Your task to perform on an android device: Open Chrome and go to the settings page Image 0: 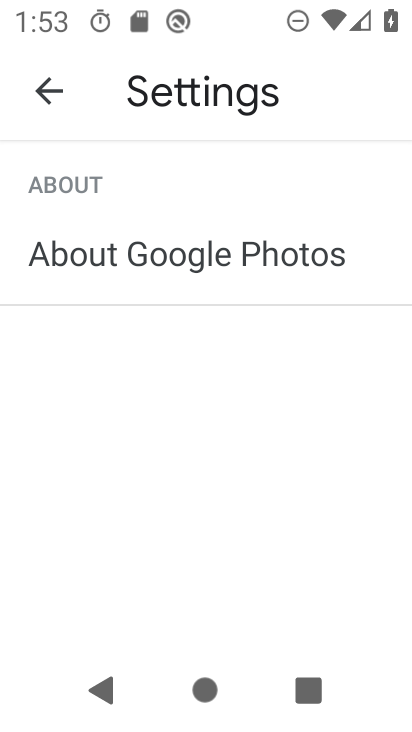
Step 0: press home button
Your task to perform on an android device: Open Chrome and go to the settings page Image 1: 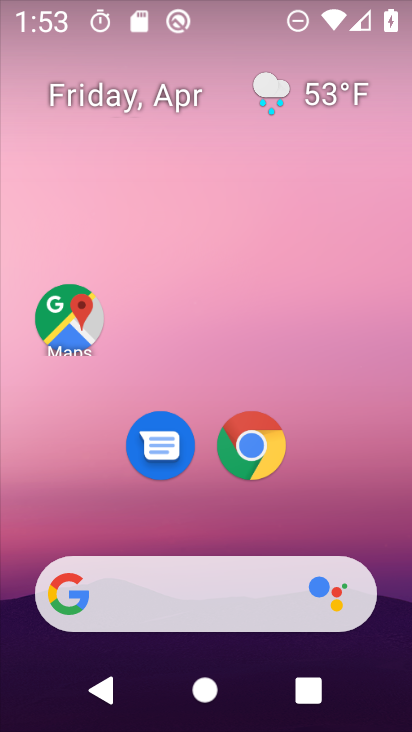
Step 1: drag from (366, 509) to (362, 164)
Your task to perform on an android device: Open Chrome and go to the settings page Image 2: 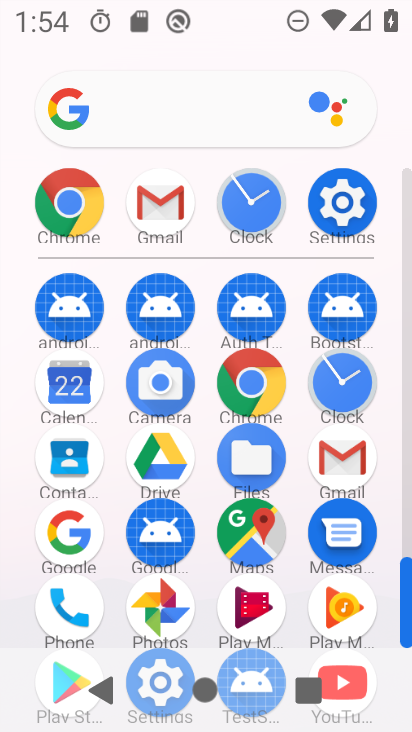
Step 2: click (267, 386)
Your task to perform on an android device: Open Chrome and go to the settings page Image 3: 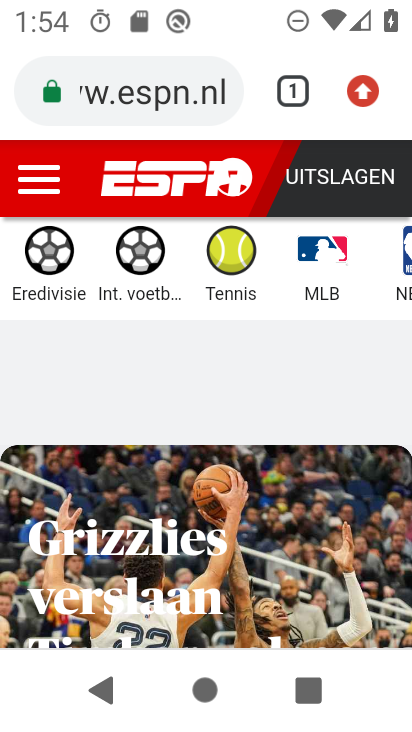
Step 3: click (363, 87)
Your task to perform on an android device: Open Chrome and go to the settings page Image 4: 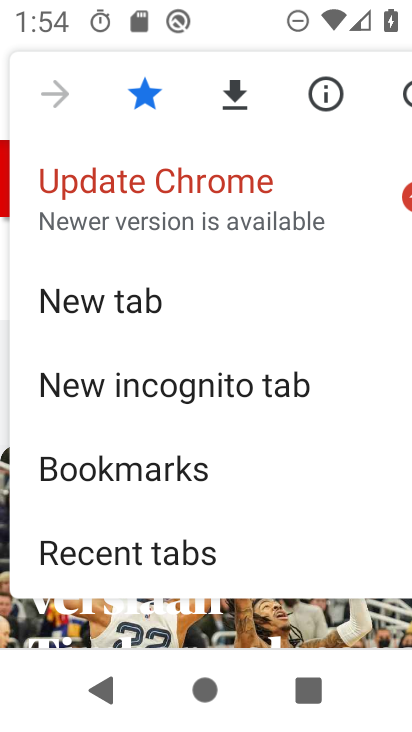
Step 4: drag from (351, 493) to (350, 395)
Your task to perform on an android device: Open Chrome and go to the settings page Image 5: 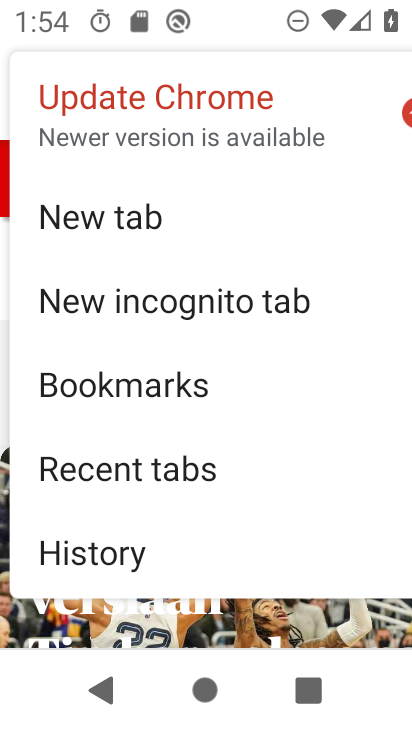
Step 5: drag from (330, 505) to (318, 337)
Your task to perform on an android device: Open Chrome and go to the settings page Image 6: 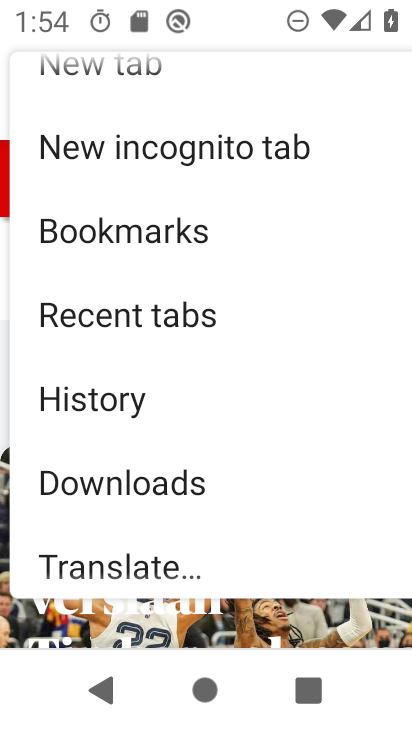
Step 6: drag from (318, 504) to (314, 333)
Your task to perform on an android device: Open Chrome and go to the settings page Image 7: 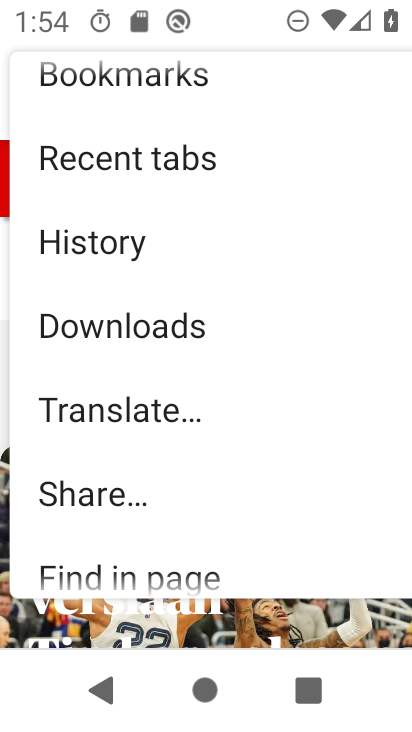
Step 7: drag from (290, 511) to (302, 276)
Your task to perform on an android device: Open Chrome and go to the settings page Image 8: 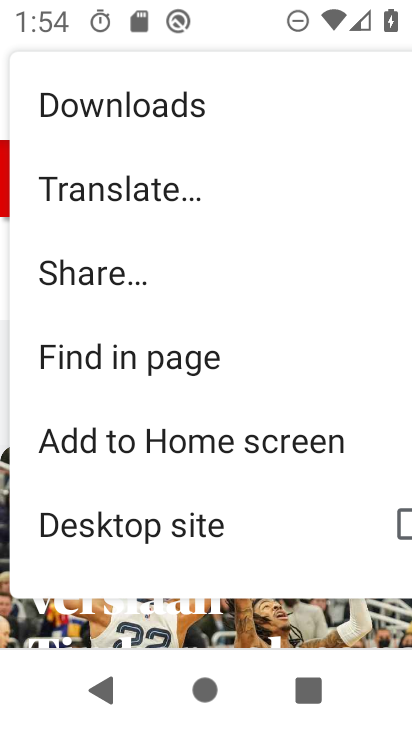
Step 8: drag from (309, 512) to (301, 287)
Your task to perform on an android device: Open Chrome and go to the settings page Image 9: 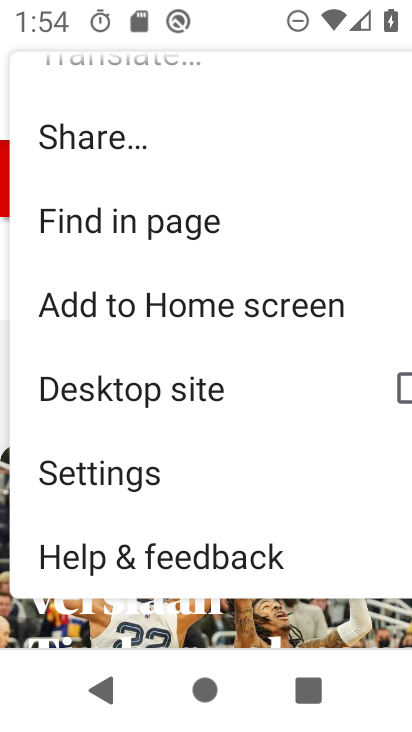
Step 9: click (133, 487)
Your task to perform on an android device: Open Chrome and go to the settings page Image 10: 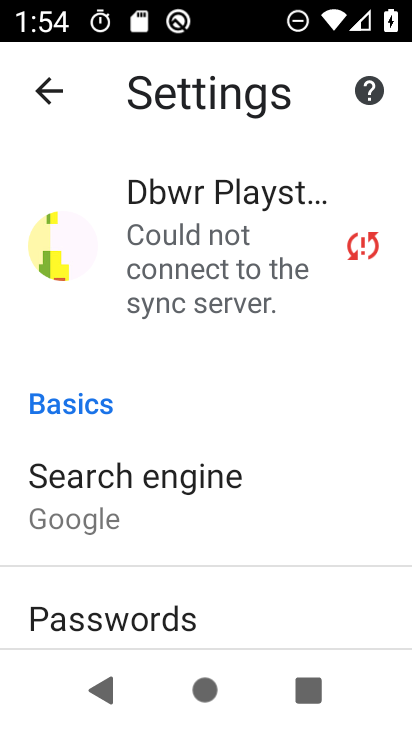
Step 10: task complete